Your task to perform on an android device: open app "eBay: The shopping marketplace" (install if not already installed), go to login, and select forgot password Image 0: 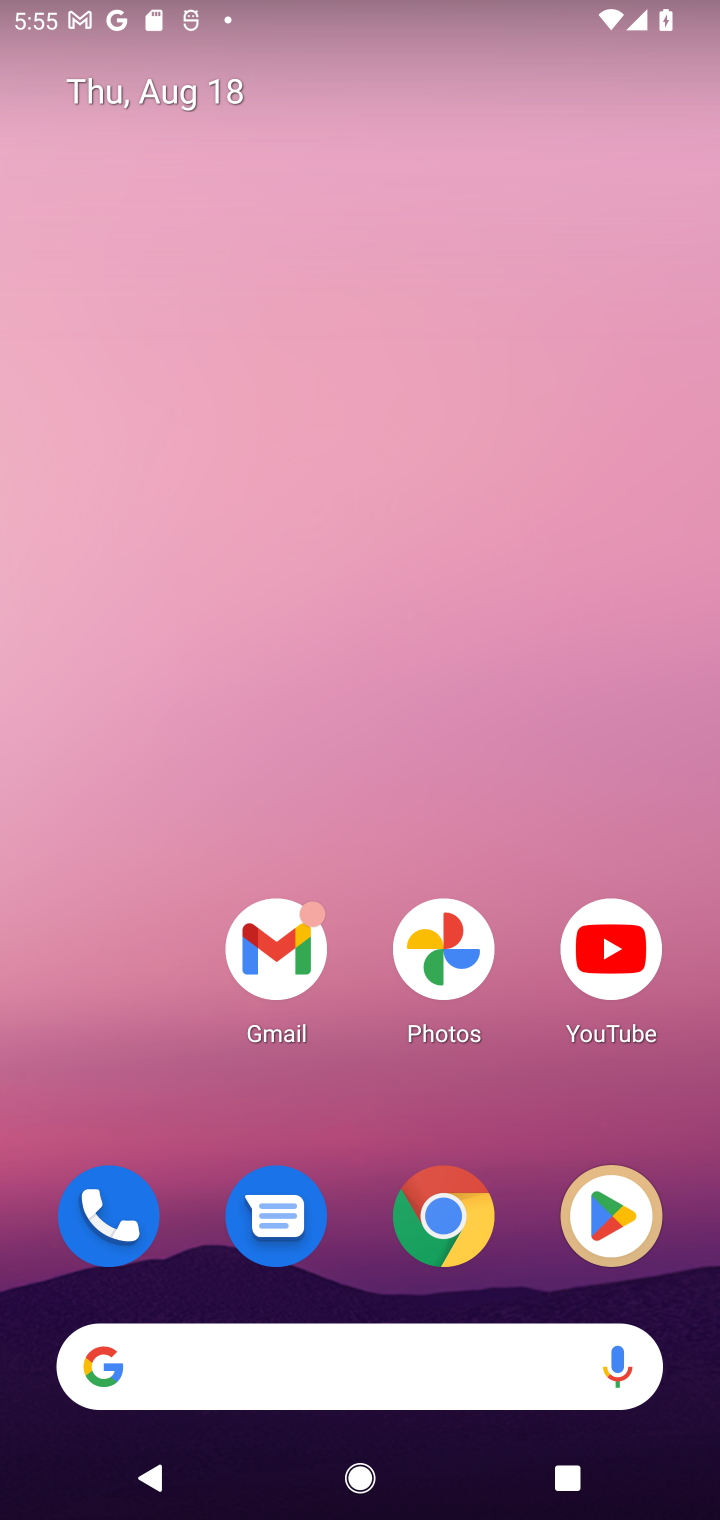
Step 0: click (617, 1219)
Your task to perform on an android device: open app "eBay: The shopping marketplace" (install if not already installed), go to login, and select forgot password Image 1: 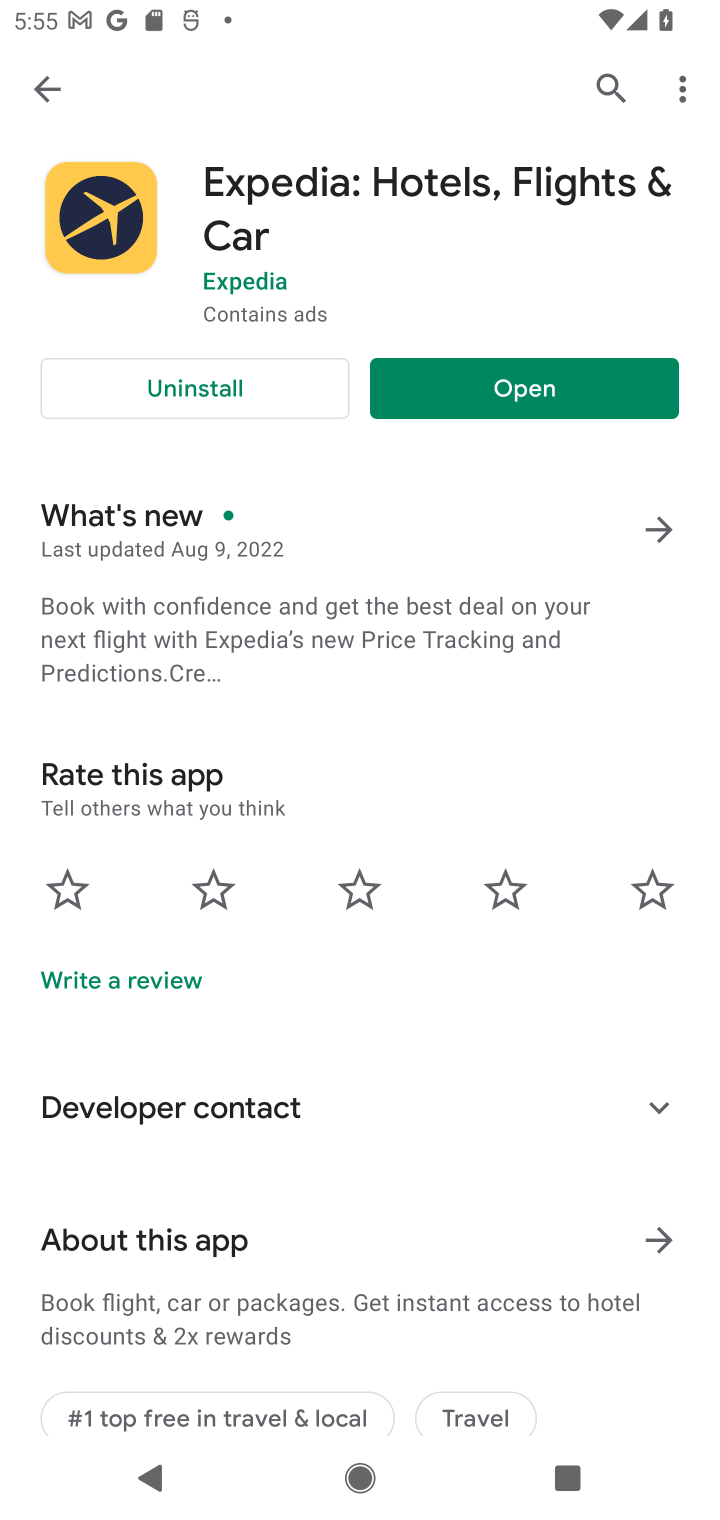
Step 1: click (593, 69)
Your task to perform on an android device: open app "eBay: The shopping marketplace" (install if not already installed), go to login, and select forgot password Image 2: 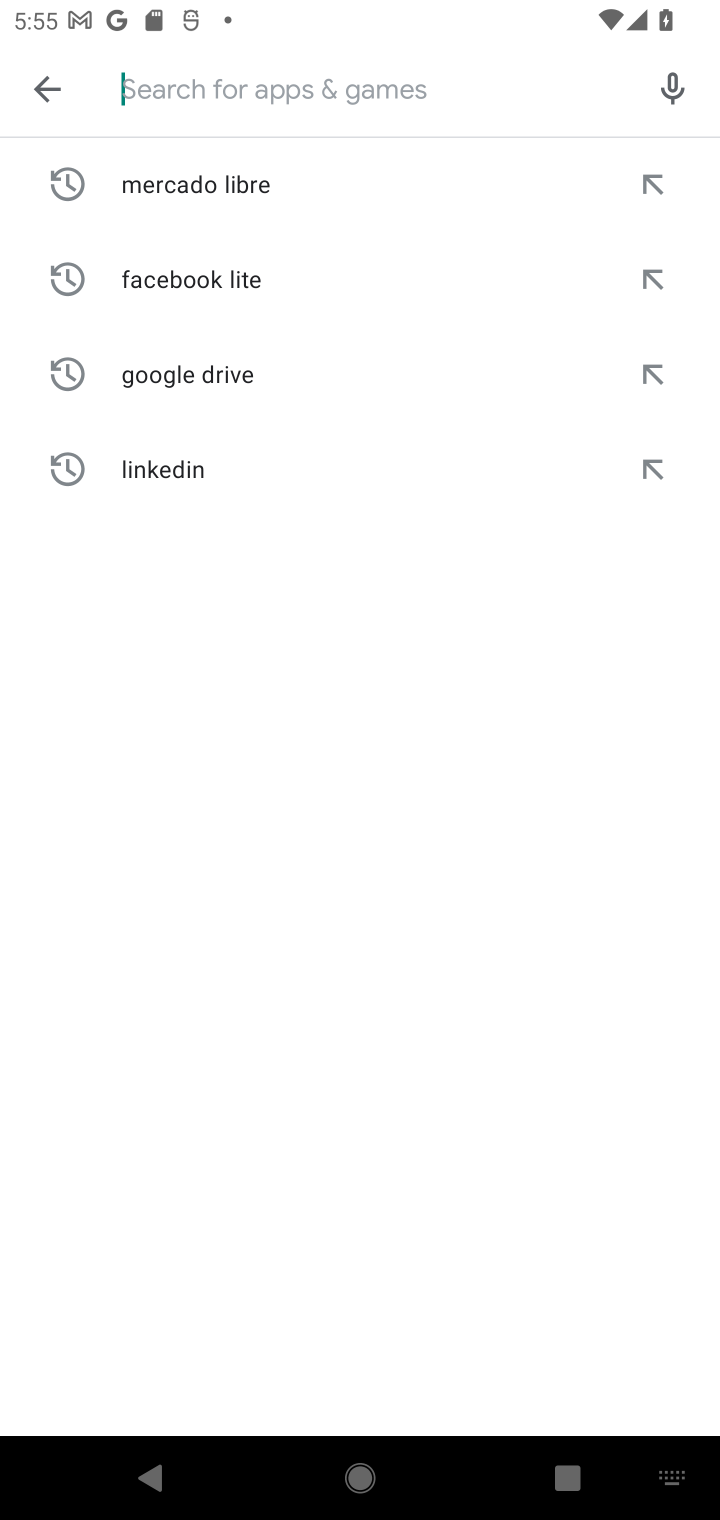
Step 2: type "ebay"
Your task to perform on an android device: open app "eBay: The shopping marketplace" (install if not already installed), go to login, and select forgot password Image 3: 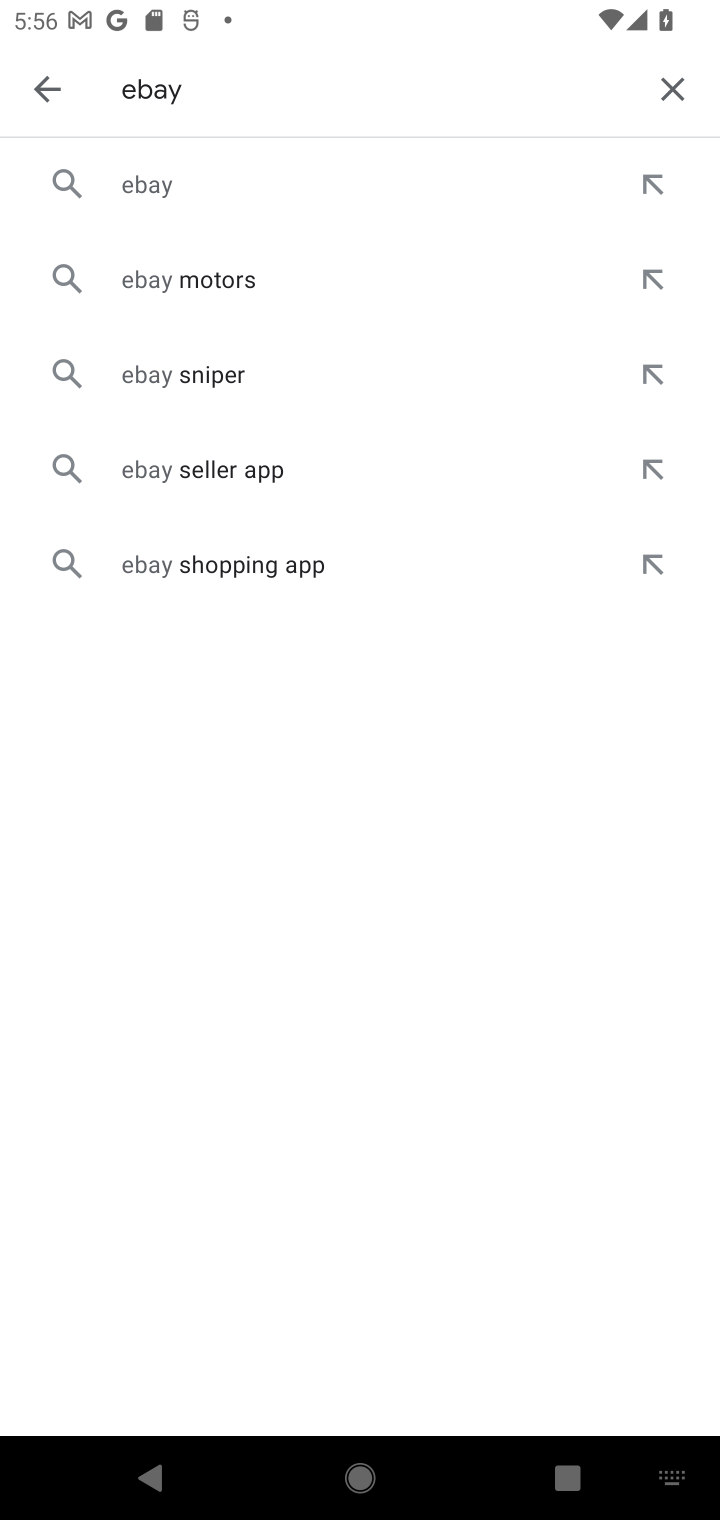
Step 3: click (168, 183)
Your task to perform on an android device: open app "eBay: The shopping marketplace" (install if not already installed), go to login, and select forgot password Image 4: 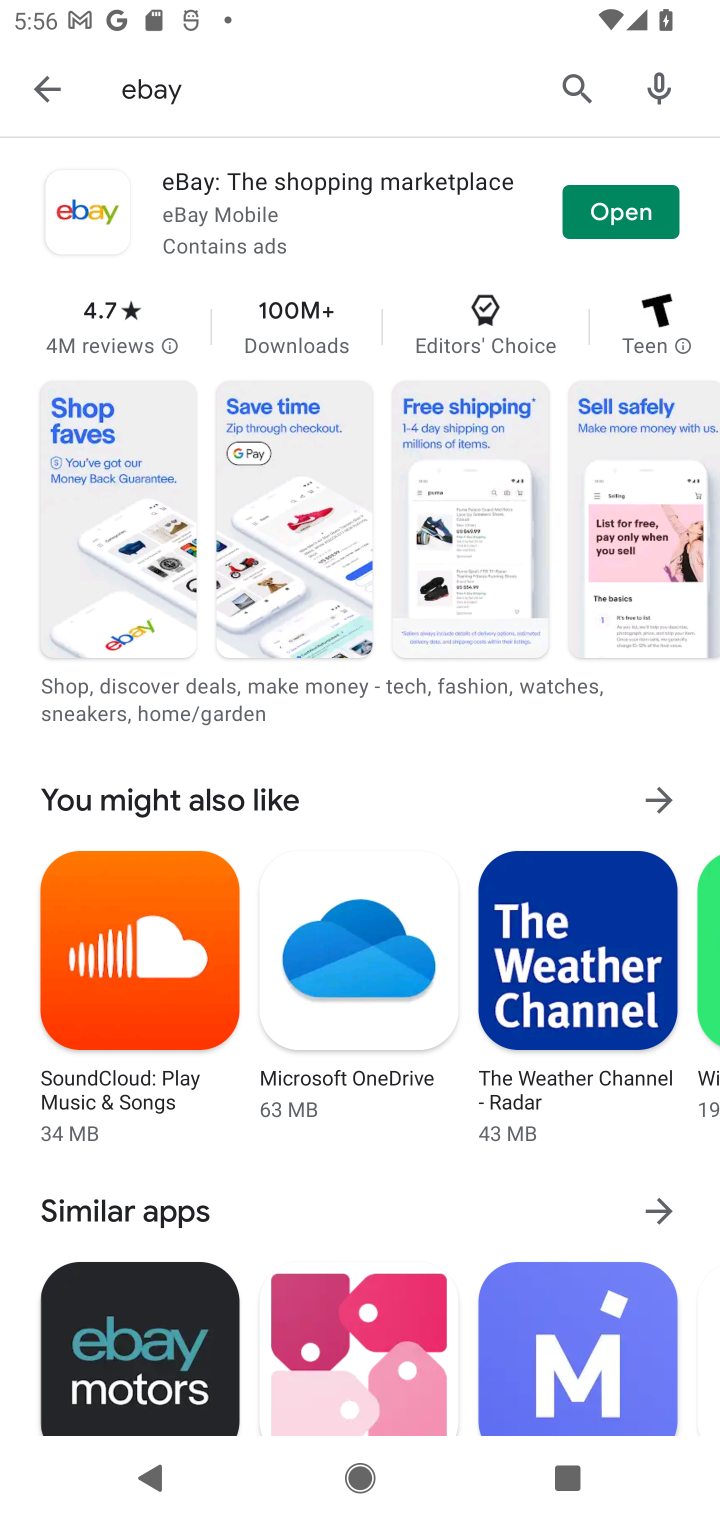
Step 4: click (612, 202)
Your task to perform on an android device: open app "eBay: The shopping marketplace" (install if not already installed), go to login, and select forgot password Image 5: 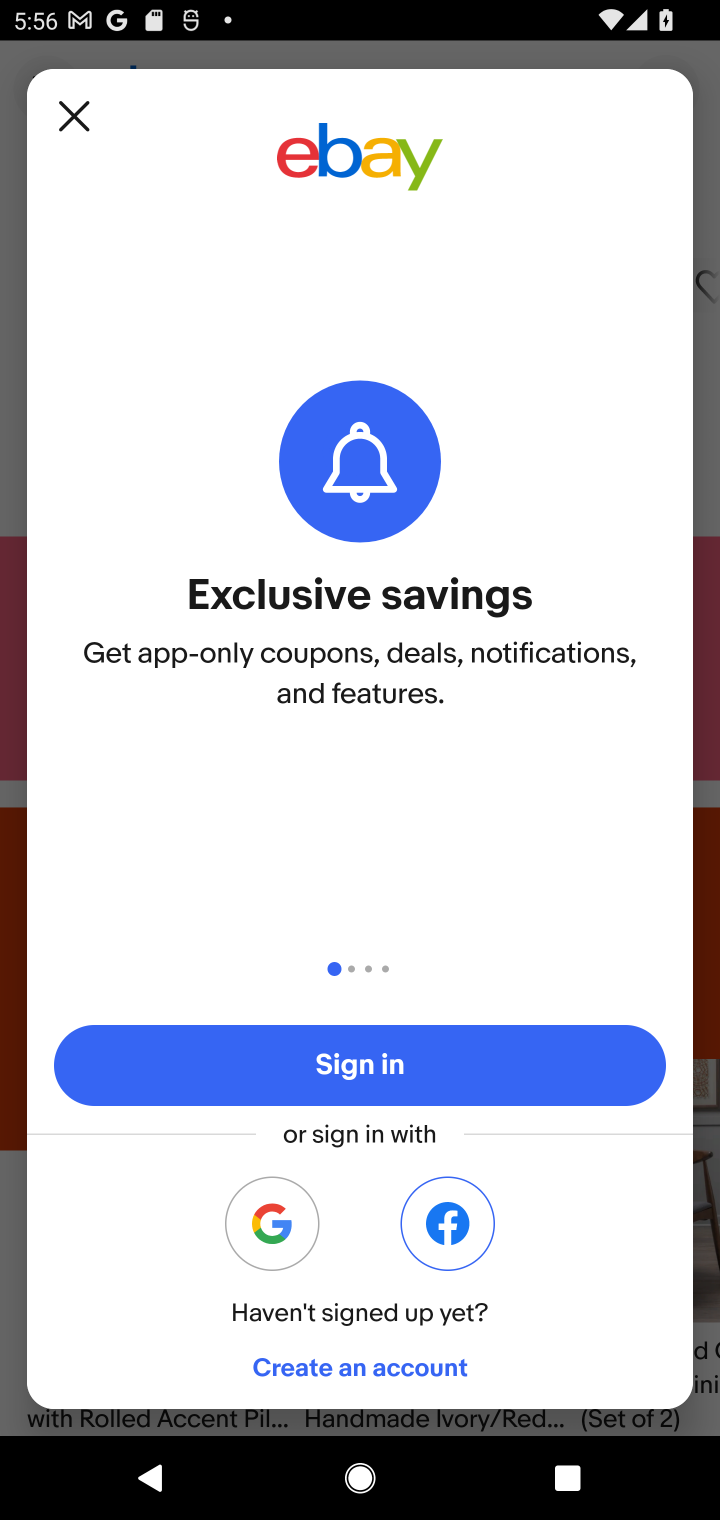
Step 5: click (343, 1052)
Your task to perform on an android device: open app "eBay: The shopping marketplace" (install if not already installed), go to login, and select forgot password Image 6: 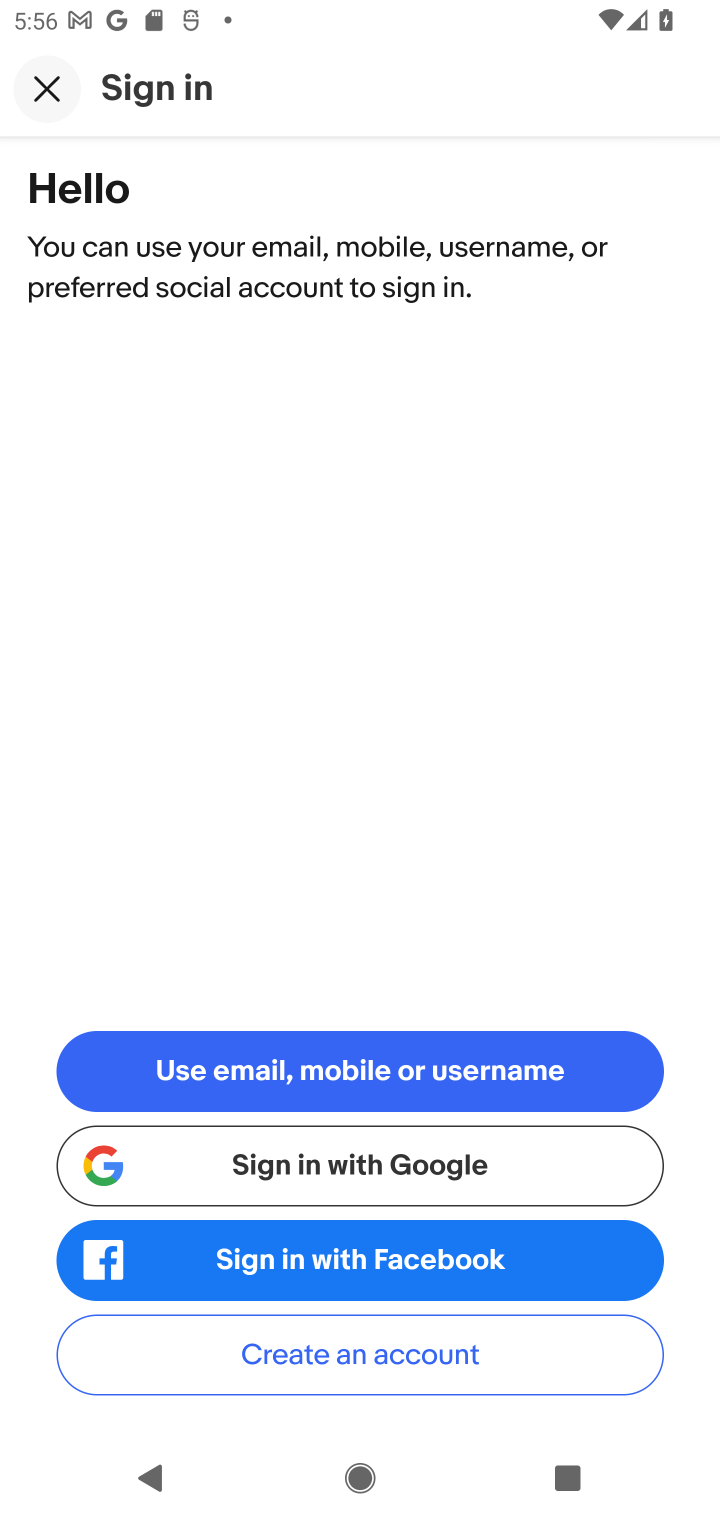
Step 6: click (316, 1064)
Your task to perform on an android device: open app "eBay: The shopping marketplace" (install if not already installed), go to login, and select forgot password Image 7: 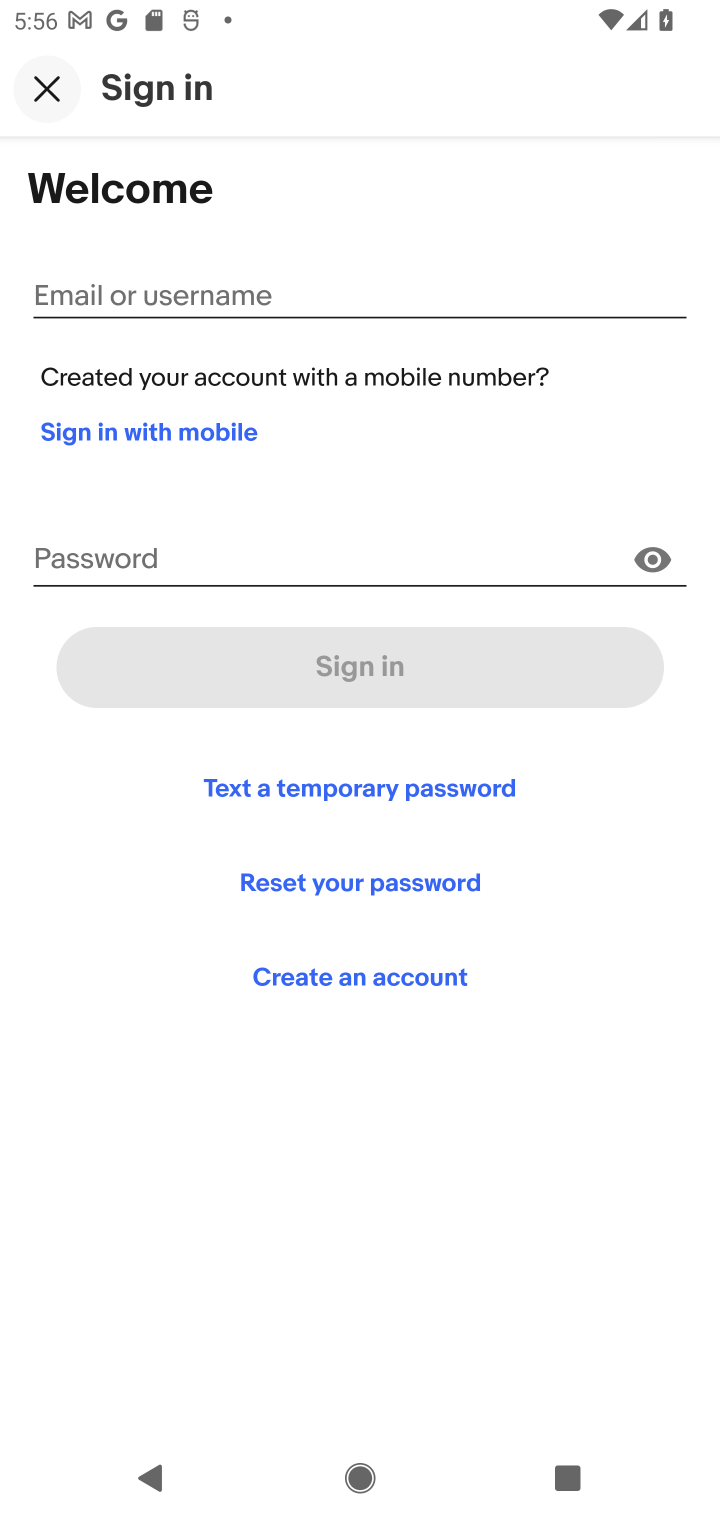
Step 7: task complete